Your task to perform on an android device: toggle priority inbox in the gmail app Image 0: 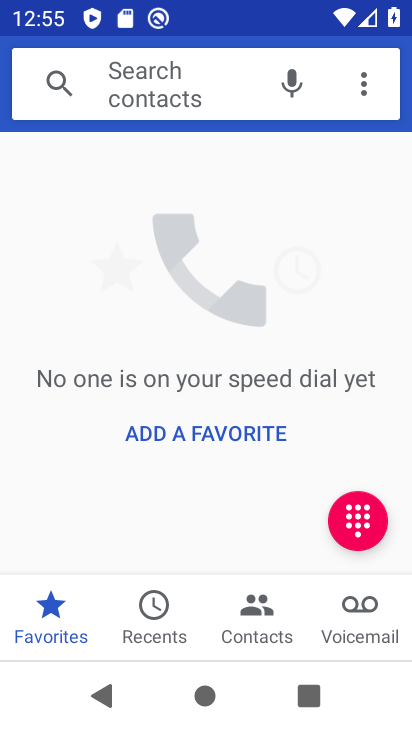
Step 0: press home button
Your task to perform on an android device: toggle priority inbox in the gmail app Image 1: 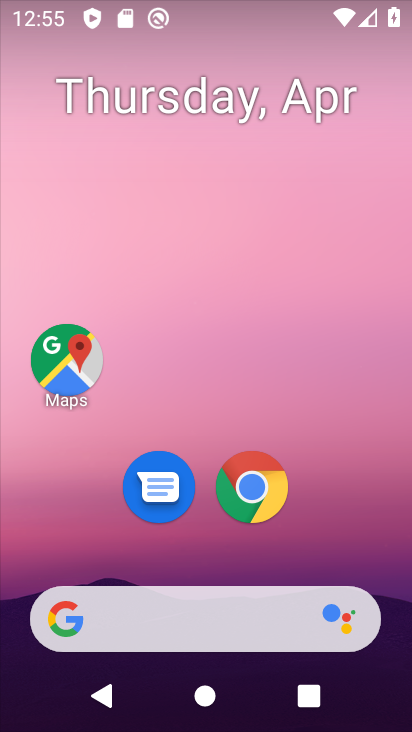
Step 1: drag from (295, 382) to (77, 79)
Your task to perform on an android device: toggle priority inbox in the gmail app Image 2: 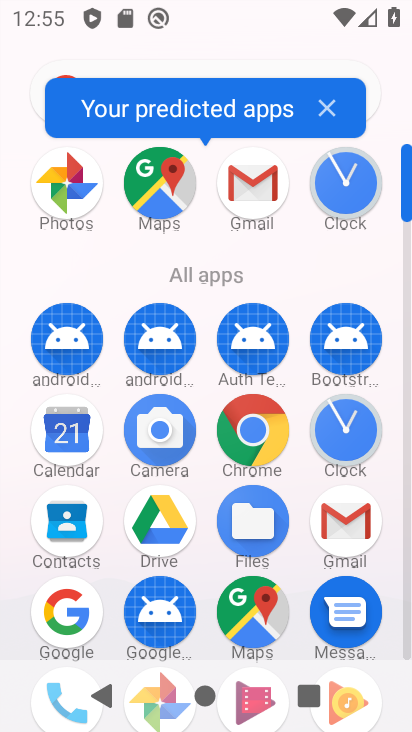
Step 2: click (254, 173)
Your task to perform on an android device: toggle priority inbox in the gmail app Image 3: 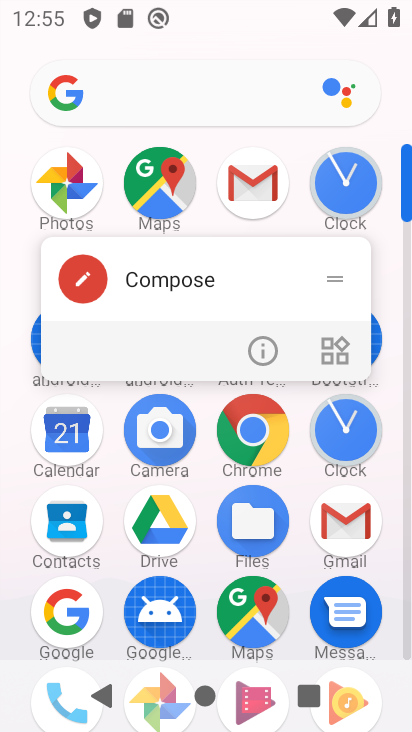
Step 3: click (254, 173)
Your task to perform on an android device: toggle priority inbox in the gmail app Image 4: 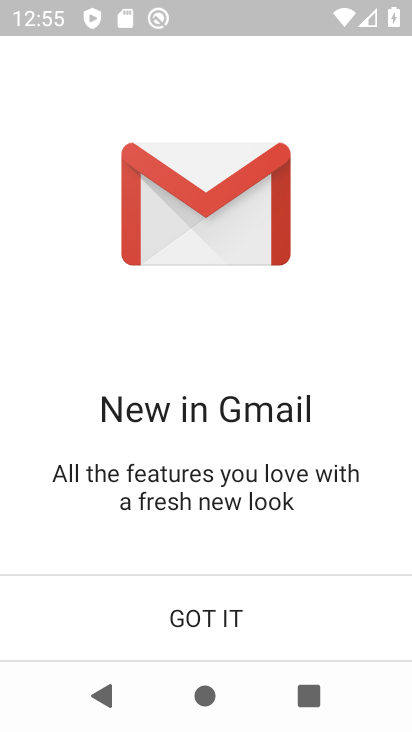
Step 4: click (176, 602)
Your task to perform on an android device: toggle priority inbox in the gmail app Image 5: 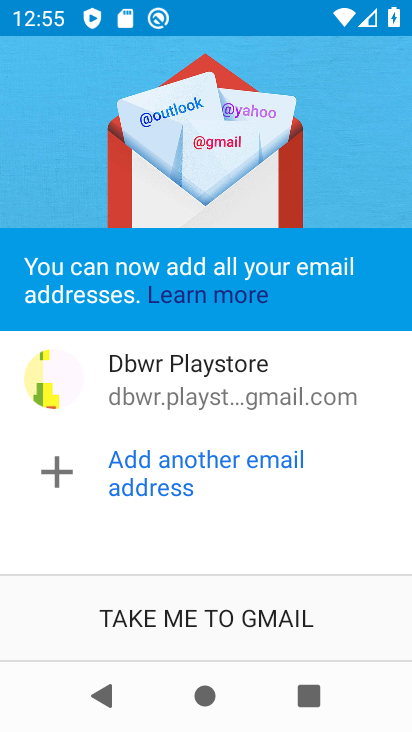
Step 5: click (177, 602)
Your task to perform on an android device: toggle priority inbox in the gmail app Image 6: 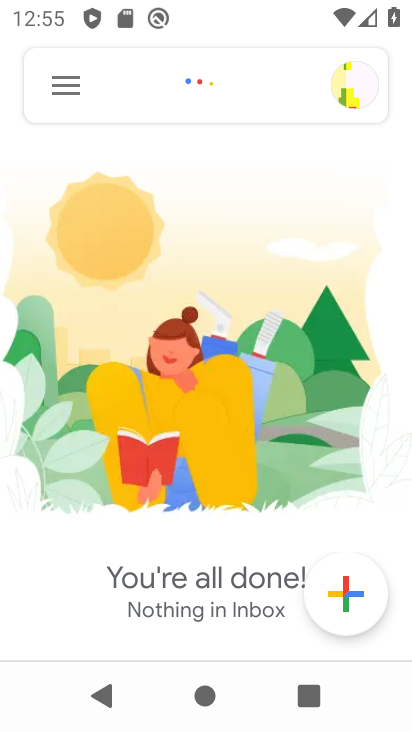
Step 6: click (63, 80)
Your task to perform on an android device: toggle priority inbox in the gmail app Image 7: 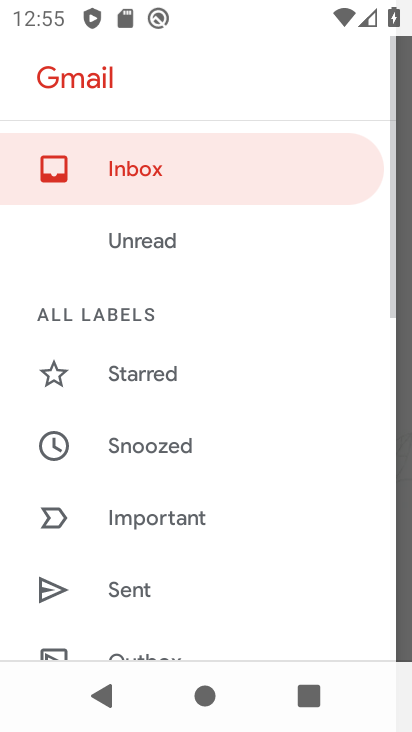
Step 7: drag from (169, 542) to (142, 204)
Your task to perform on an android device: toggle priority inbox in the gmail app Image 8: 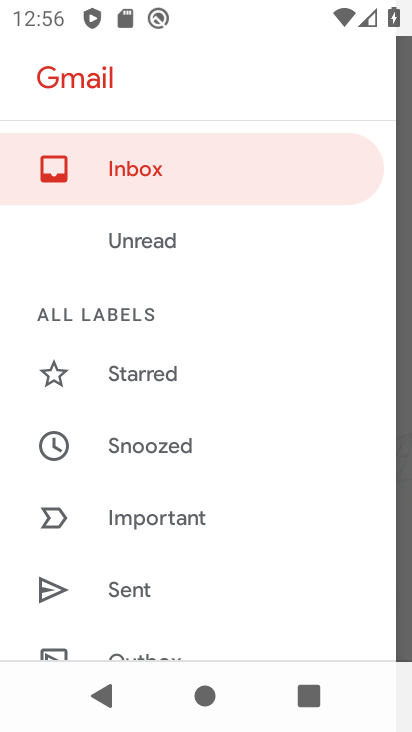
Step 8: drag from (221, 582) to (220, 129)
Your task to perform on an android device: toggle priority inbox in the gmail app Image 9: 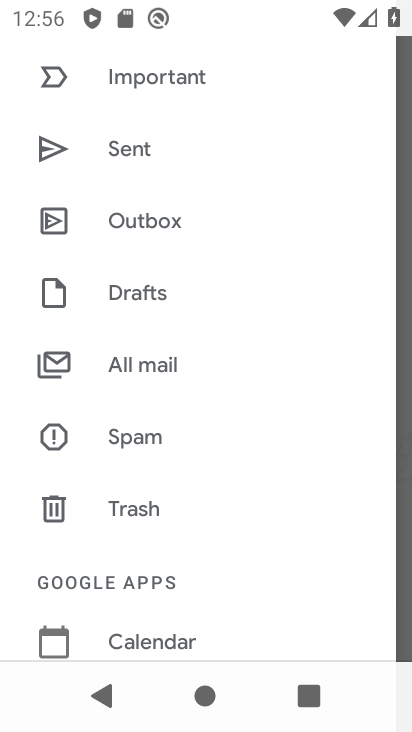
Step 9: drag from (220, 532) to (264, 222)
Your task to perform on an android device: toggle priority inbox in the gmail app Image 10: 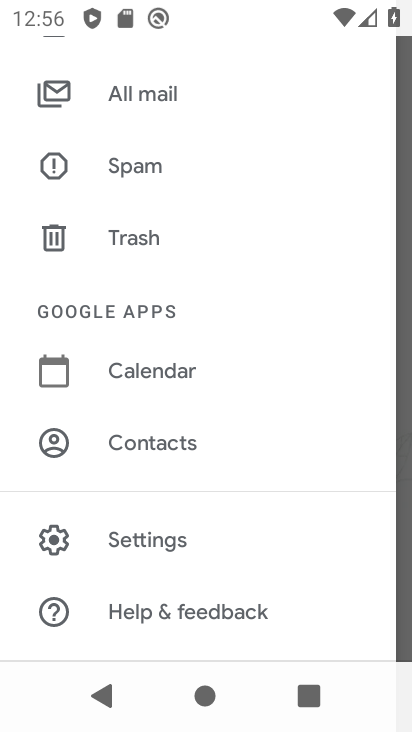
Step 10: click (144, 537)
Your task to perform on an android device: toggle priority inbox in the gmail app Image 11: 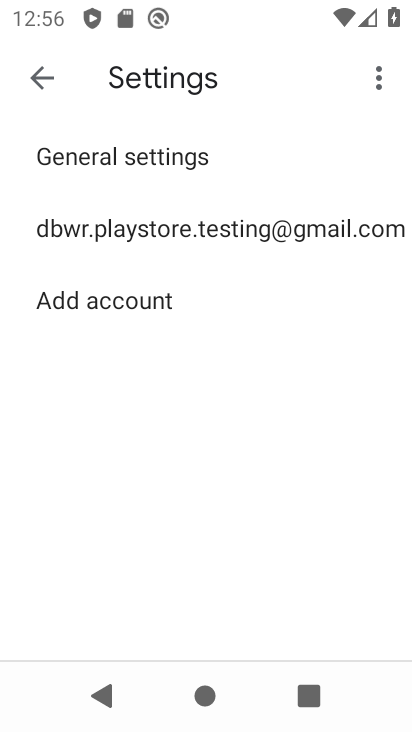
Step 11: click (155, 230)
Your task to perform on an android device: toggle priority inbox in the gmail app Image 12: 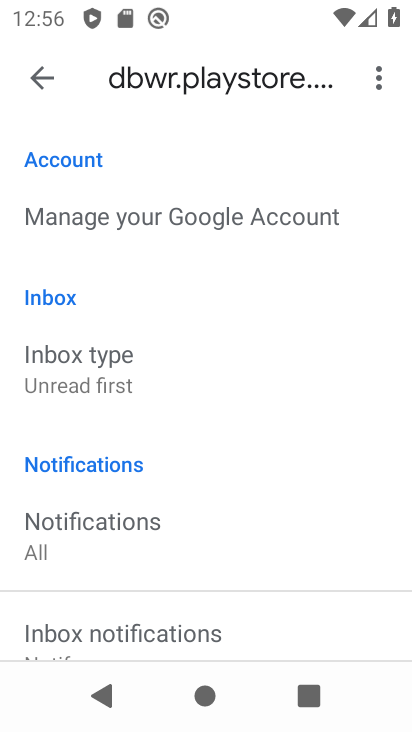
Step 12: click (76, 370)
Your task to perform on an android device: toggle priority inbox in the gmail app Image 13: 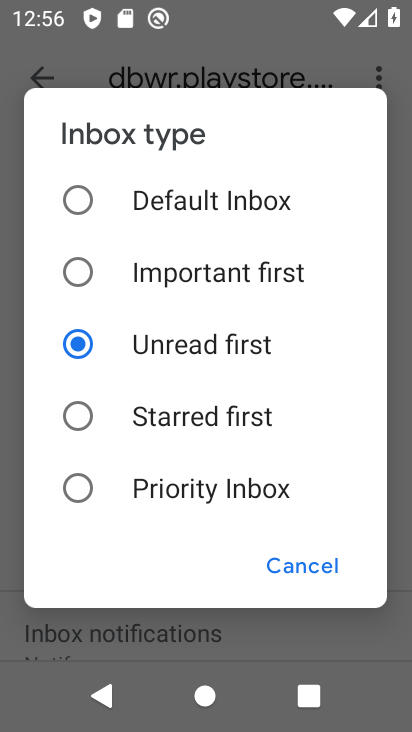
Step 13: click (126, 488)
Your task to perform on an android device: toggle priority inbox in the gmail app Image 14: 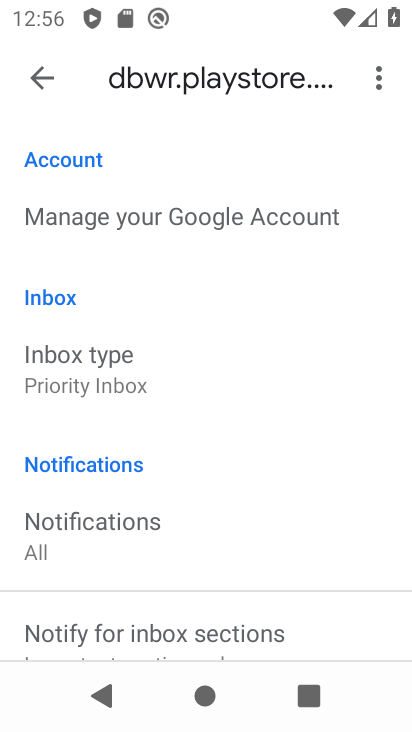
Step 14: task complete